Your task to perform on an android device: Open sound settings Image 0: 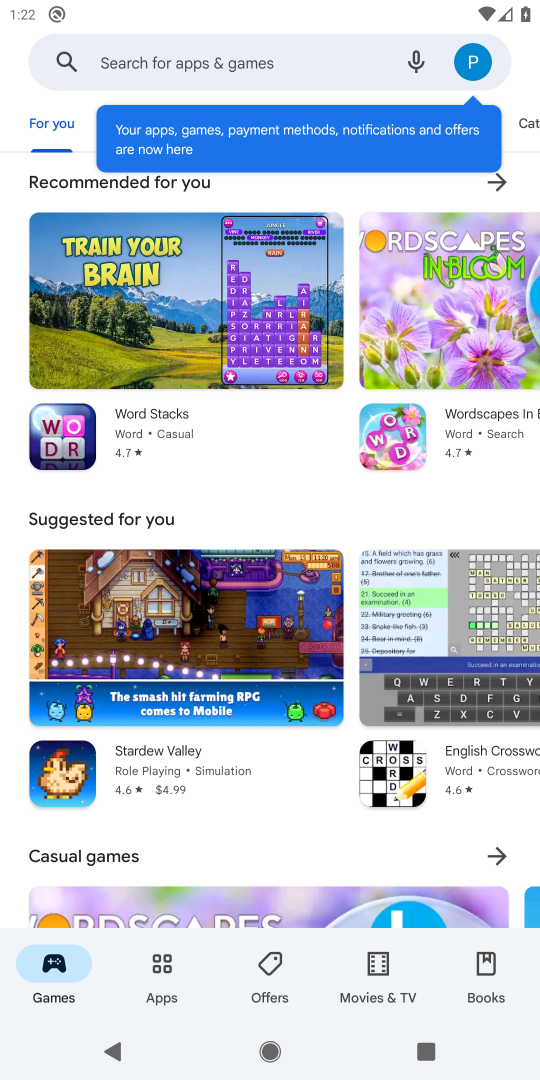
Step 0: press home button
Your task to perform on an android device: Open sound settings Image 1: 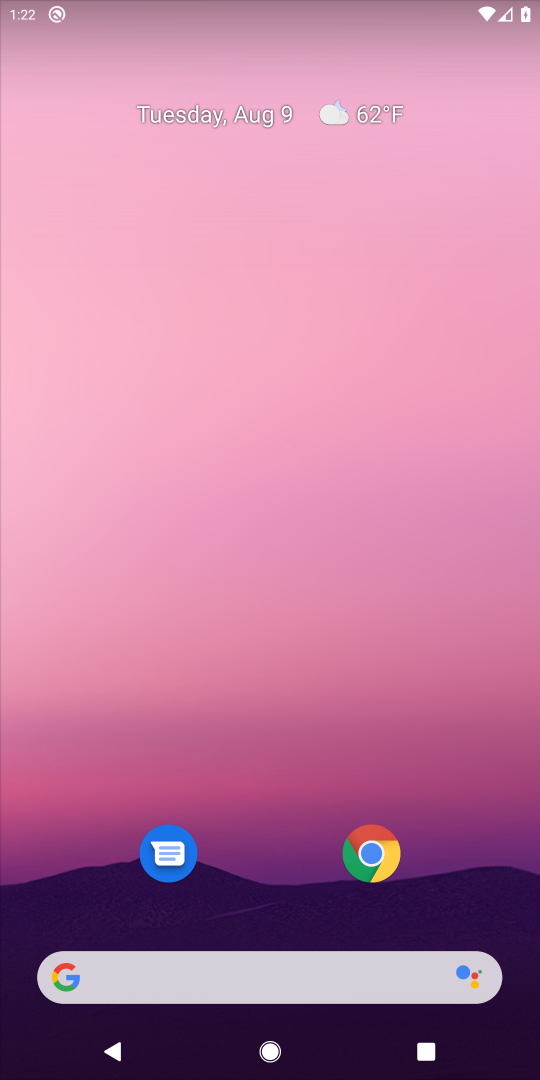
Step 1: drag from (285, 828) to (431, 52)
Your task to perform on an android device: Open sound settings Image 2: 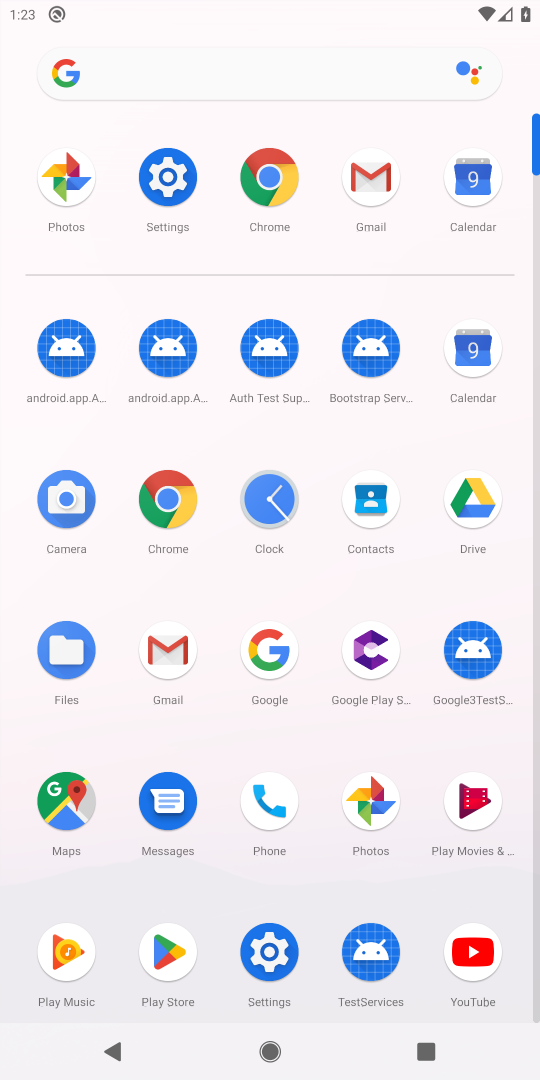
Step 2: click (163, 166)
Your task to perform on an android device: Open sound settings Image 3: 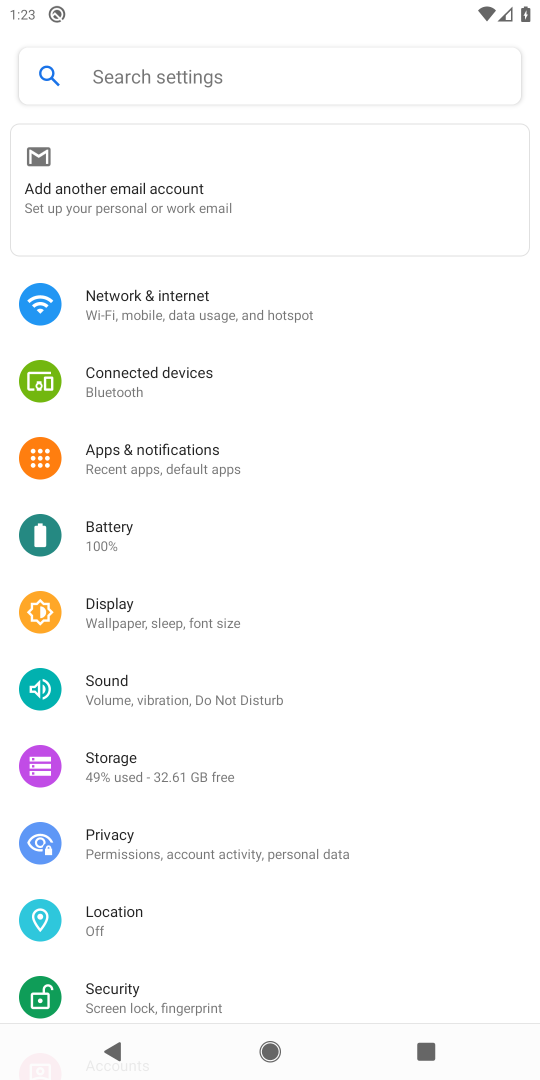
Step 3: click (169, 689)
Your task to perform on an android device: Open sound settings Image 4: 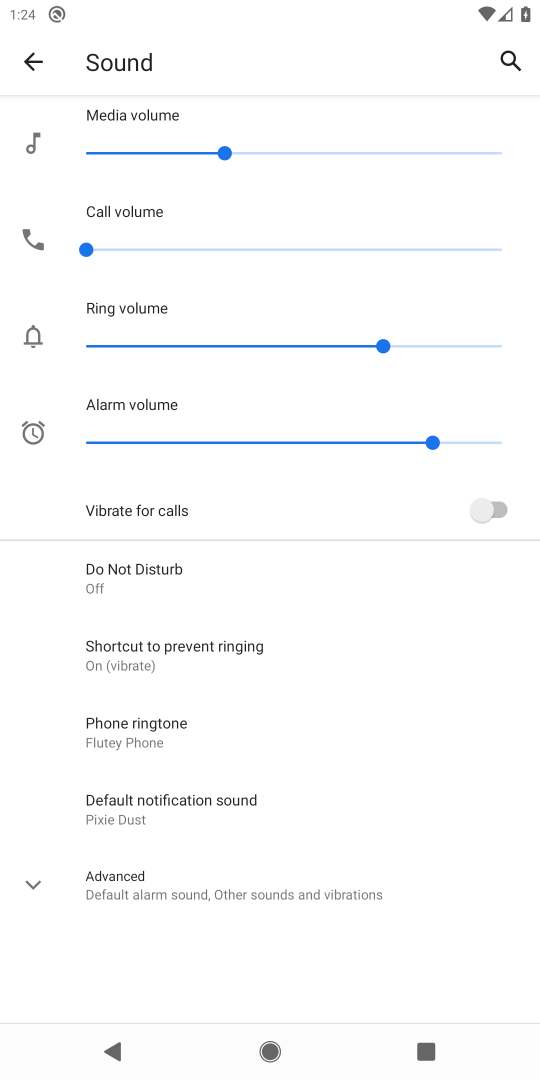
Step 4: task complete